Your task to perform on an android device: open chrome and create a bookmark for the current page Image 0: 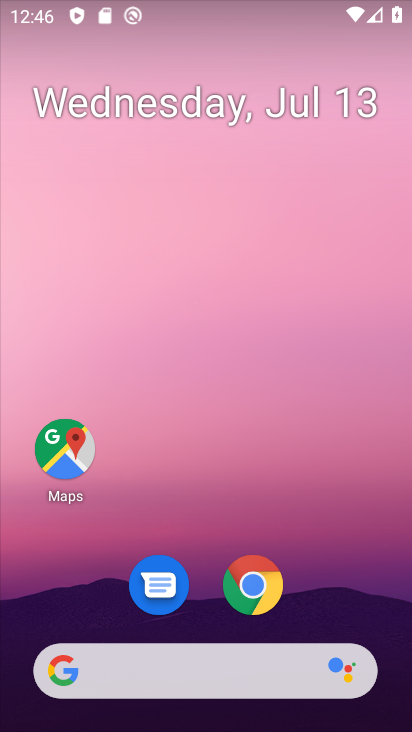
Step 0: click (266, 582)
Your task to perform on an android device: open chrome and create a bookmark for the current page Image 1: 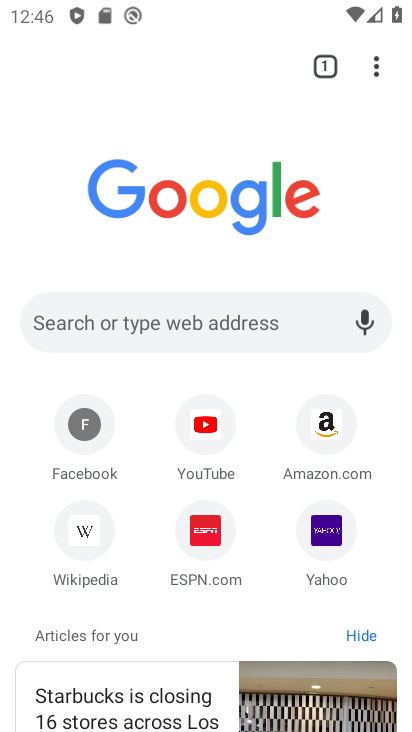
Step 1: click (375, 69)
Your task to perform on an android device: open chrome and create a bookmark for the current page Image 2: 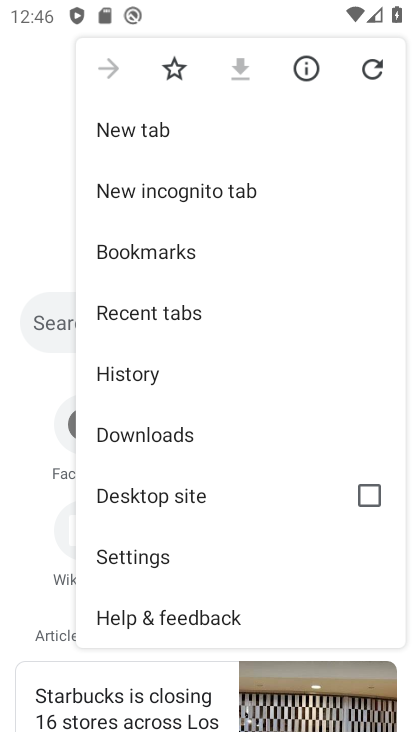
Step 2: click (176, 67)
Your task to perform on an android device: open chrome and create a bookmark for the current page Image 3: 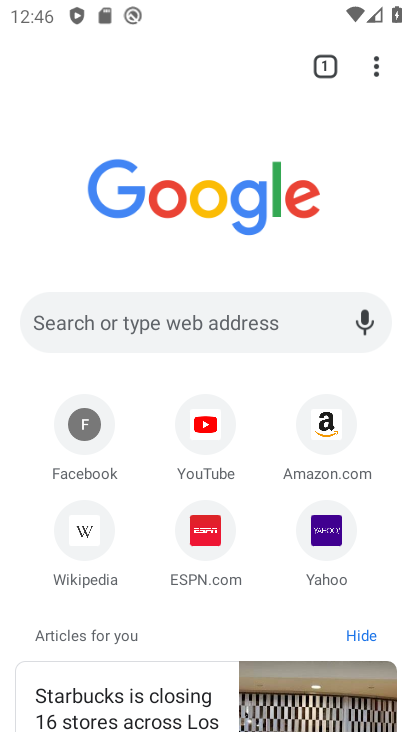
Step 3: task complete